Your task to perform on an android device: allow cookies in the chrome app Image 0: 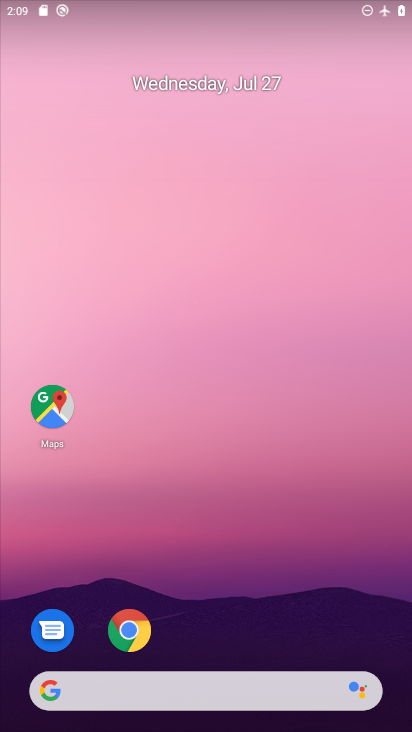
Step 0: click (132, 632)
Your task to perform on an android device: allow cookies in the chrome app Image 1: 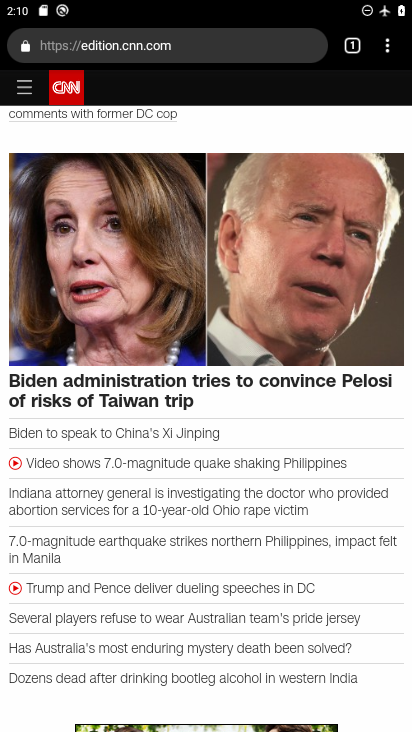
Step 1: click (384, 50)
Your task to perform on an android device: allow cookies in the chrome app Image 2: 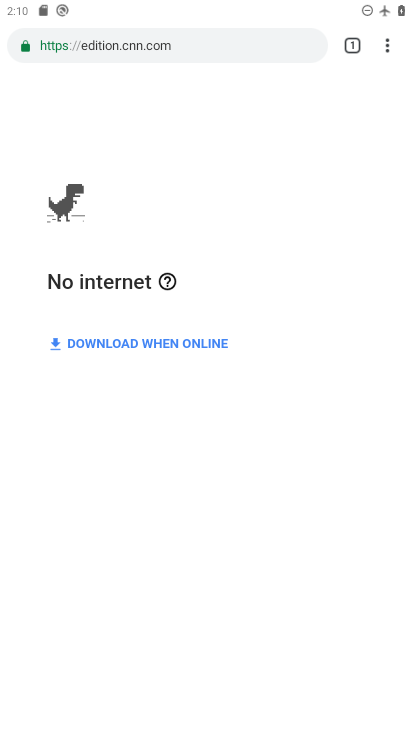
Step 2: click (385, 54)
Your task to perform on an android device: allow cookies in the chrome app Image 3: 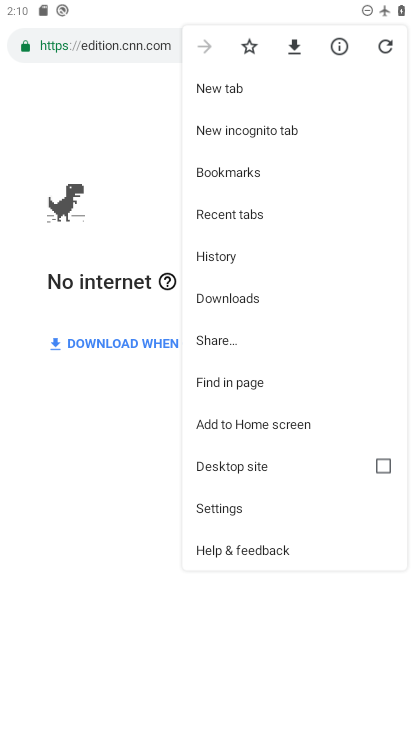
Step 3: click (219, 503)
Your task to perform on an android device: allow cookies in the chrome app Image 4: 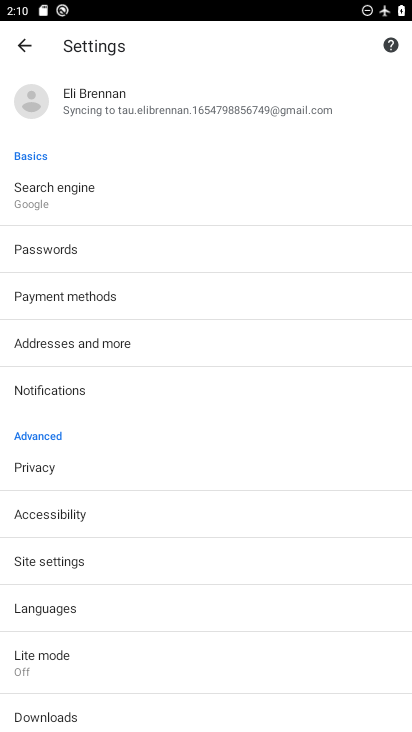
Step 4: click (50, 564)
Your task to perform on an android device: allow cookies in the chrome app Image 5: 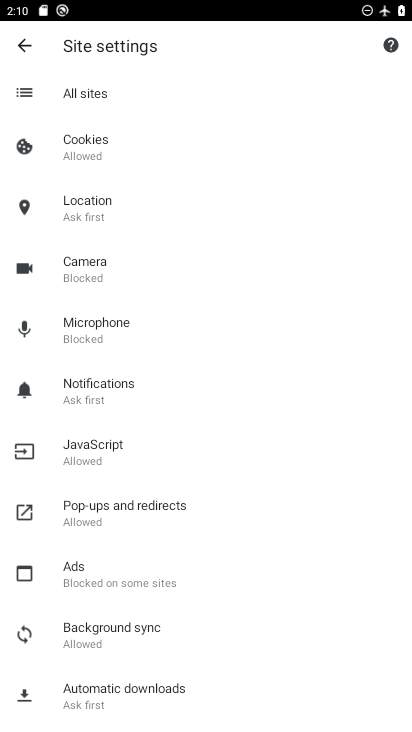
Step 5: click (74, 146)
Your task to perform on an android device: allow cookies in the chrome app Image 6: 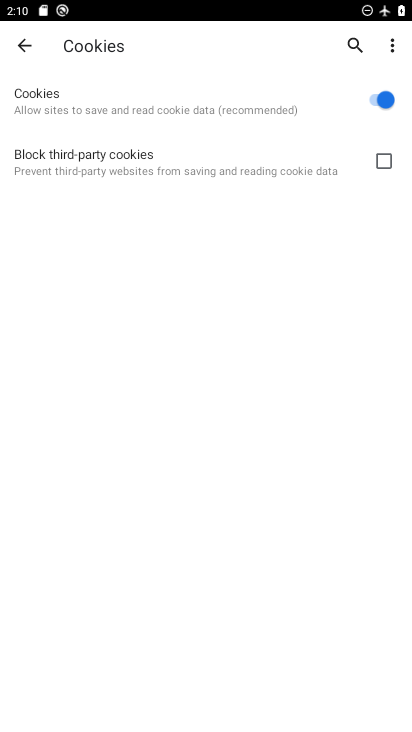
Step 6: task complete